Your task to perform on an android device: empty trash in the gmail app Image 0: 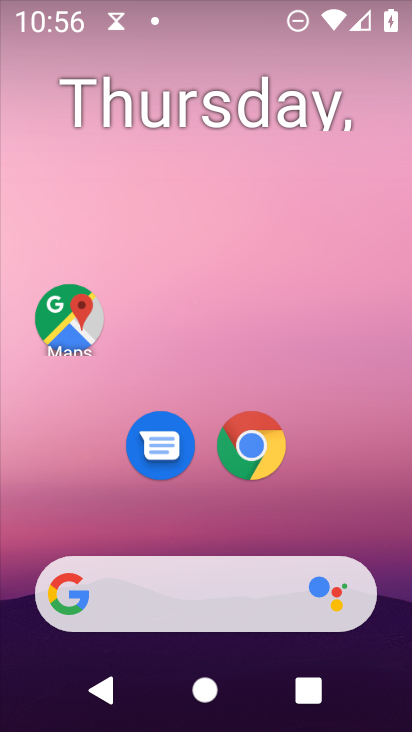
Step 0: drag from (224, 723) to (217, 40)
Your task to perform on an android device: empty trash in the gmail app Image 1: 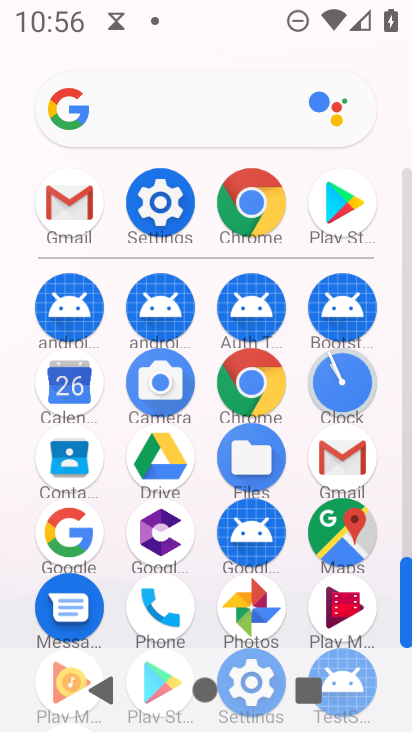
Step 1: click (350, 453)
Your task to perform on an android device: empty trash in the gmail app Image 2: 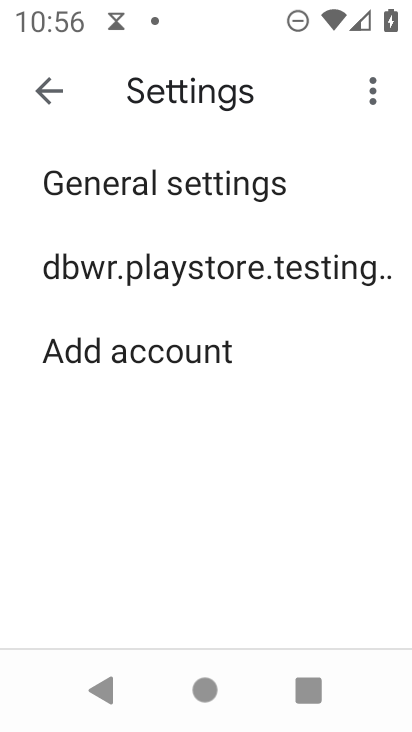
Step 2: click (49, 92)
Your task to perform on an android device: empty trash in the gmail app Image 3: 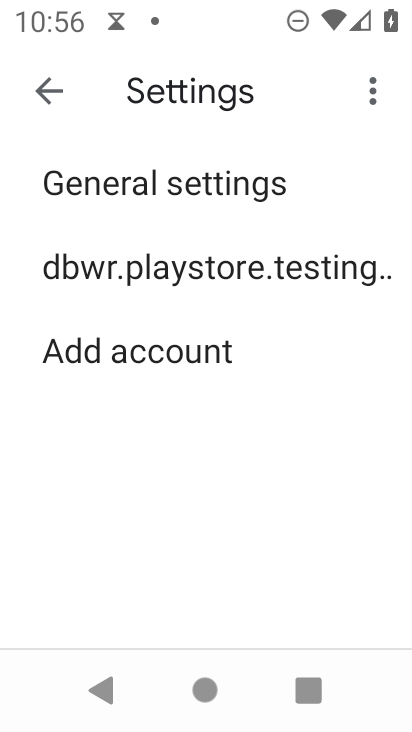
Step 3: click (53, 88)
Your task to perform on an android device: empty trash in the gmail app Image 4: 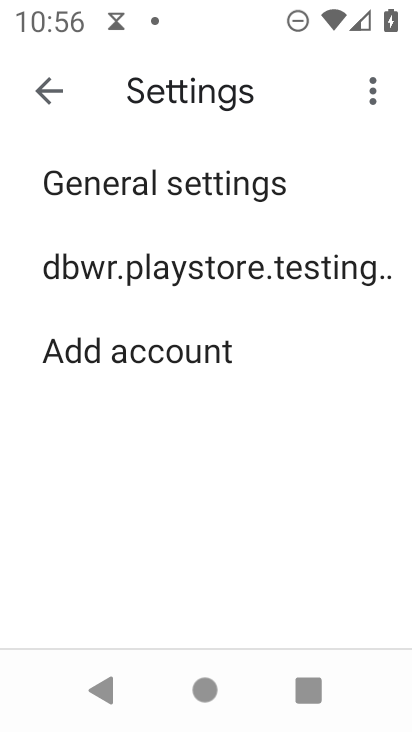
Step 4: click (51, 84)
Your task to perform on an android device: empty trash in the gmail app Image 5: 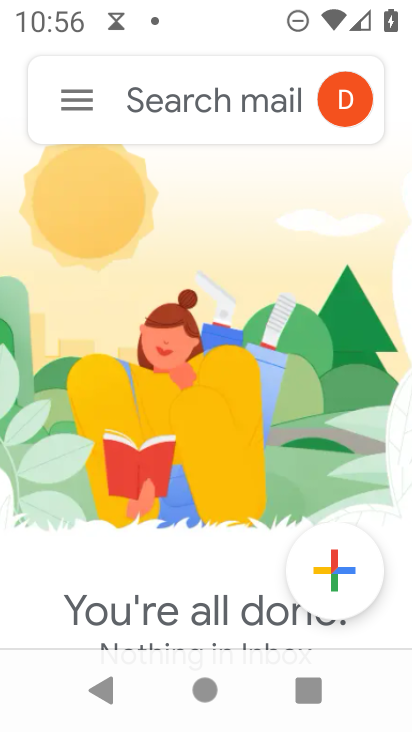
Step 5: click (93, 100)
Your task to perform on an android device: empty trash in the gmail app Image 6: 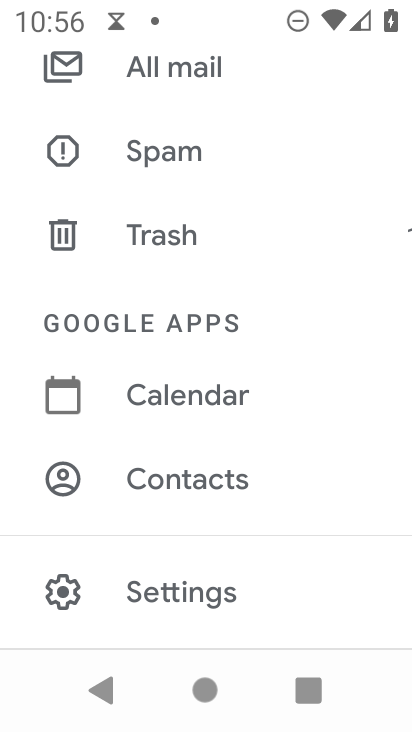
Step 6: click (156, 238)
Your task to perform on an android device: empty trash in the gmail app Image 7: 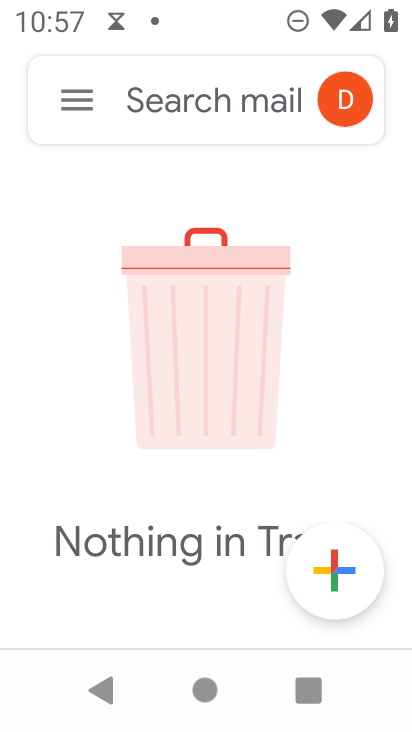
Step 7: task complete